Your task to perform on an android device: allow notifications from all sites in the chrome app Image 0: 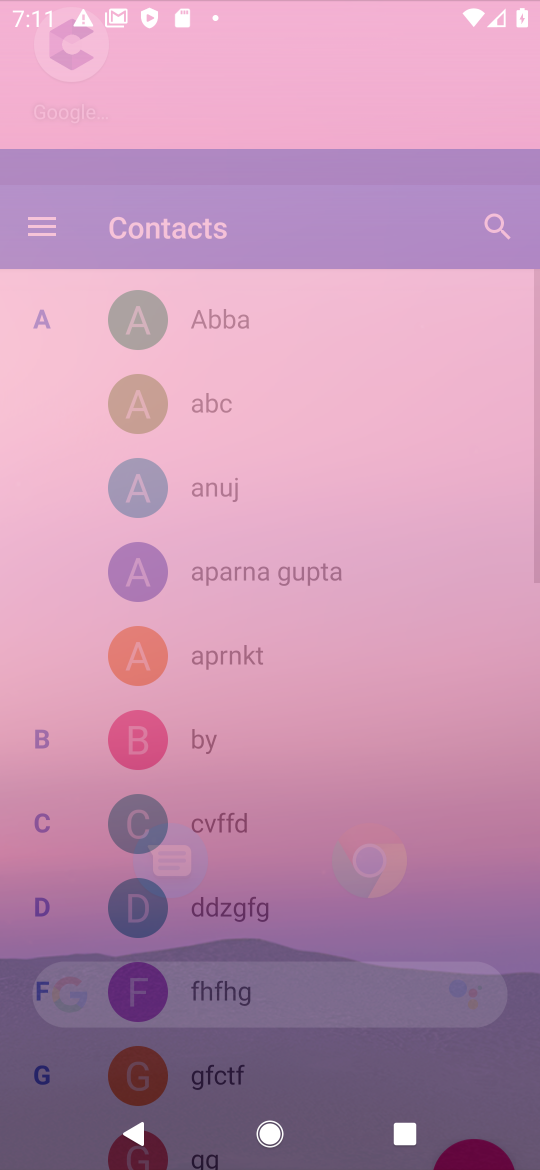
Step 0: press home button
Your task to perform on an android device: allow notifications from all sites in the chrome app Image 1: 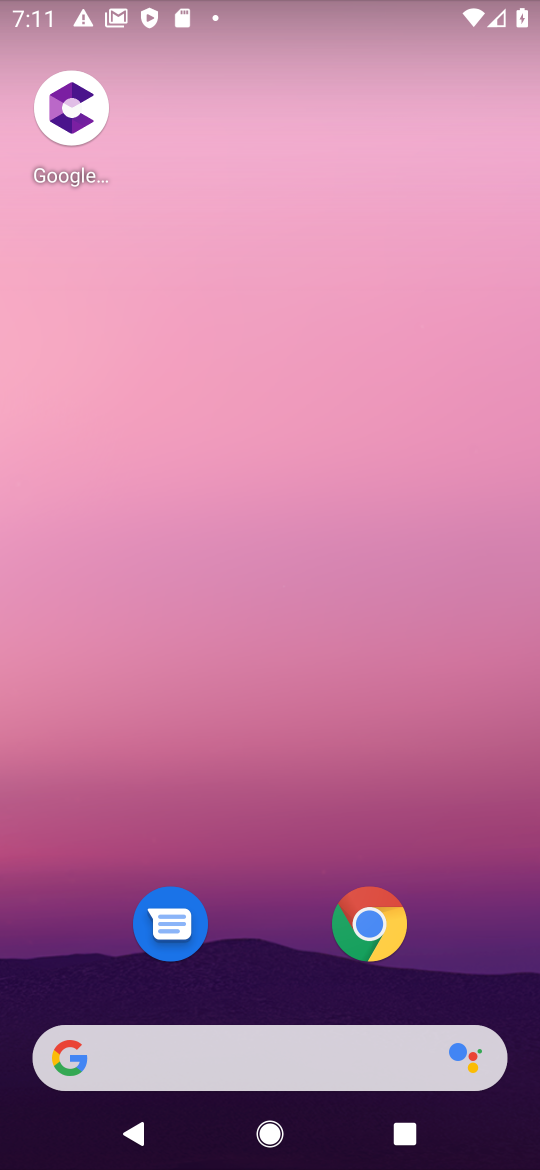
Step 1: drag from (283, 1057) to (283, 304)
Your task to perform on an android device: allow notifications from all sites in the chrome app Image 2: 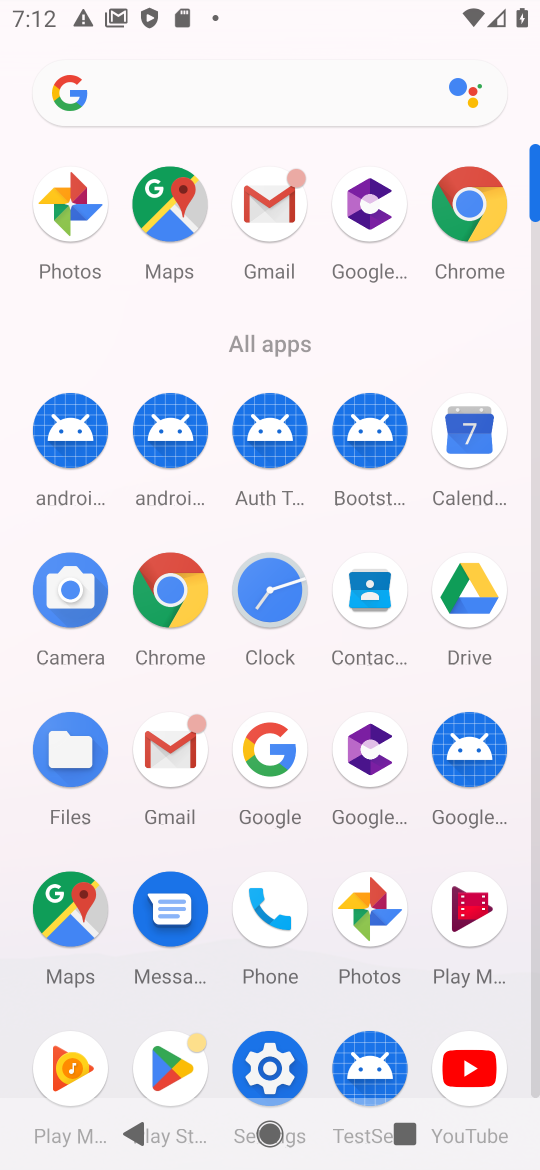
Step 2: click (417, 225)
Your task to perform on an android device: allow notifications from all sites in the chrome app Image 3: 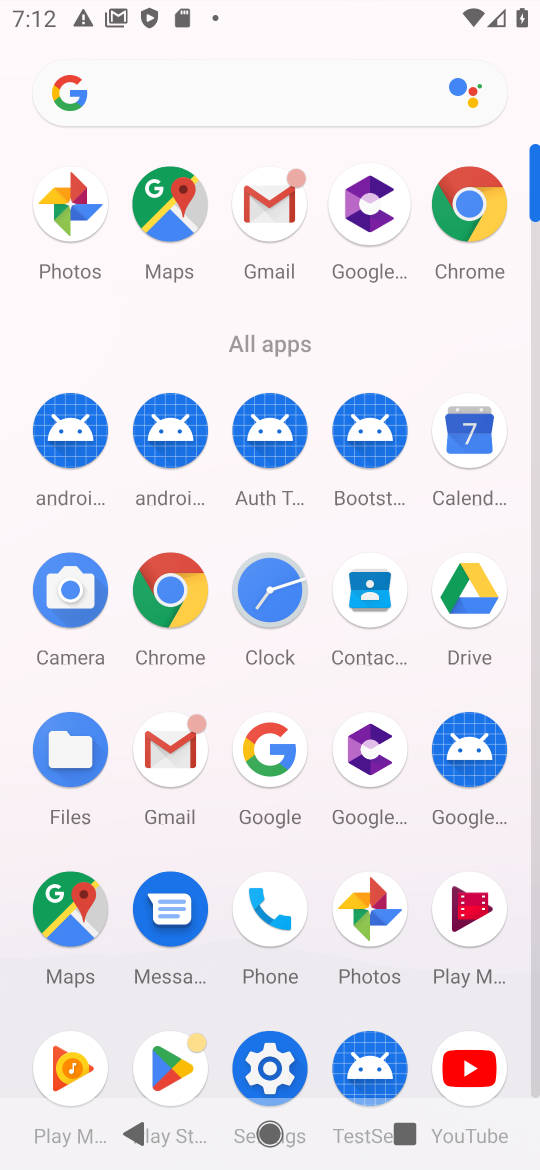
Step 3: press home button
Your task to perform on an android device: allow notifications from all sites in the chrome app Image 4: 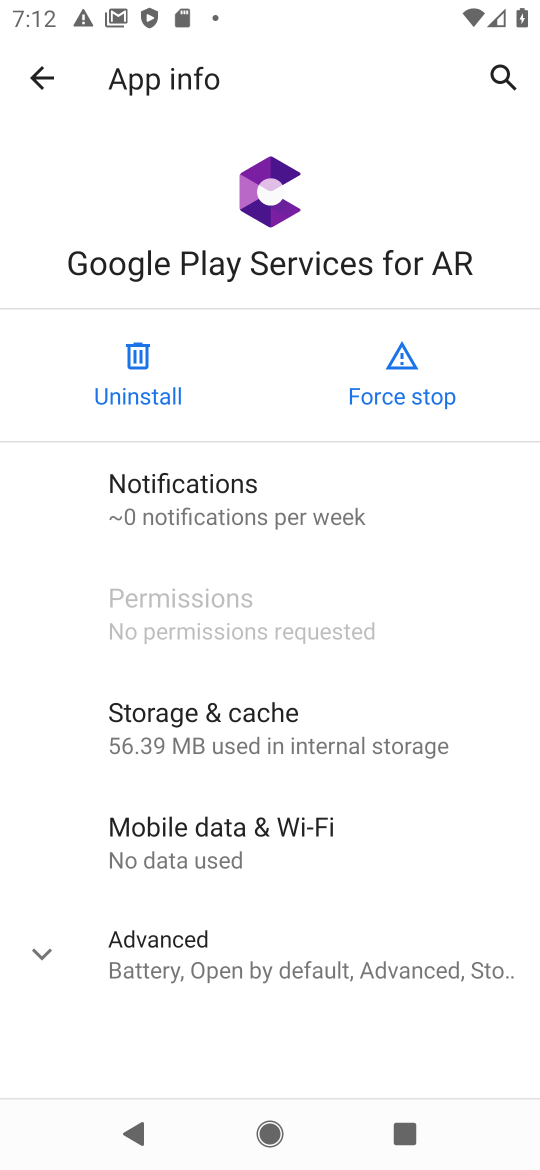
Step 4: click (451, 213)
Your task to perform on an android device: allow notifications from all sites in the chrome app Image 5: 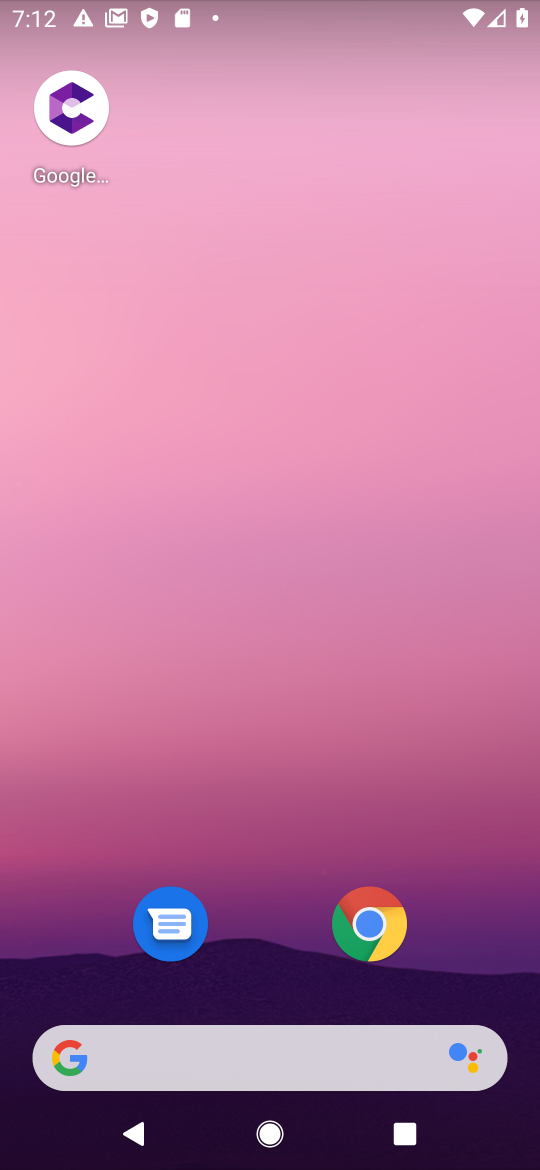
Step 5: drag from (461, 478) to (428, 255)
Your task to perform on an android device: allow notifications from all sites in the chrome app Image 6: 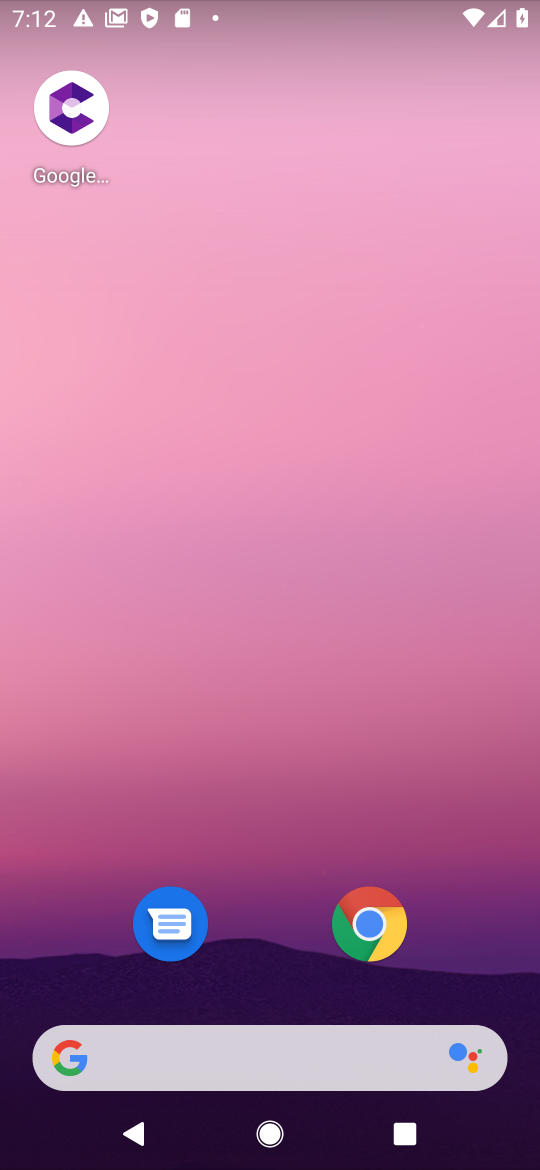
Step 6: drag from (366, 944) to (444, 391)
Your task to perform on an android device: allow notifications from all sites in the chrome app Image 7: 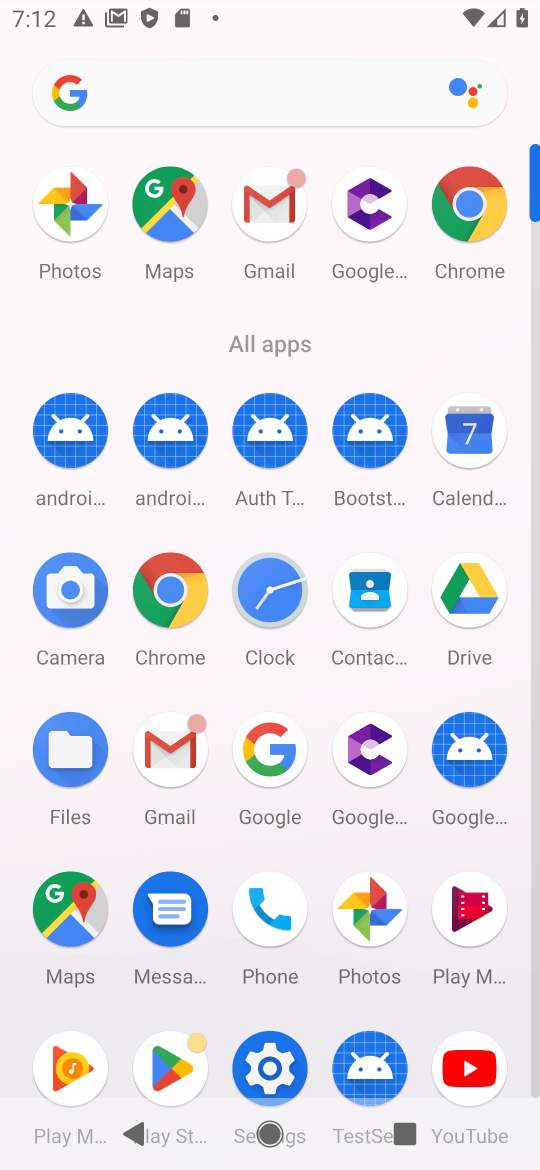
Step 7: click (464, 242)
Your task to perform on an android device: allow notifications from all sites in the chrome app Image 8: 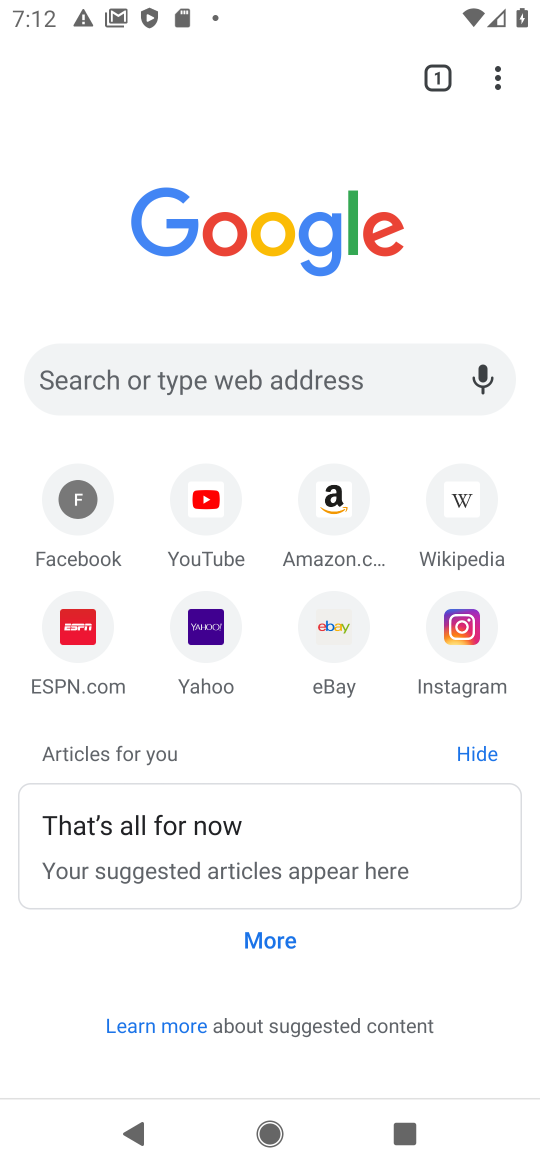
Step 8: click (497, 97)
Your task to perform on an android device: allow notifications from all sites in the chrome app Image 9: 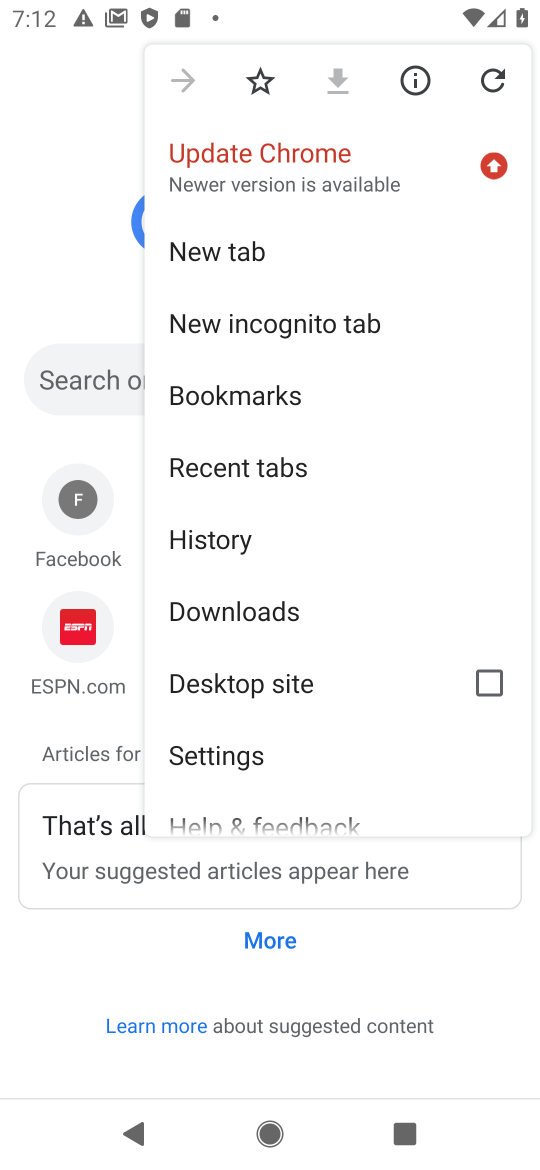
Step 9: click (231, 755)
Your task to perform on an android device: allow notifications from all sites in the chrome app Image 10: 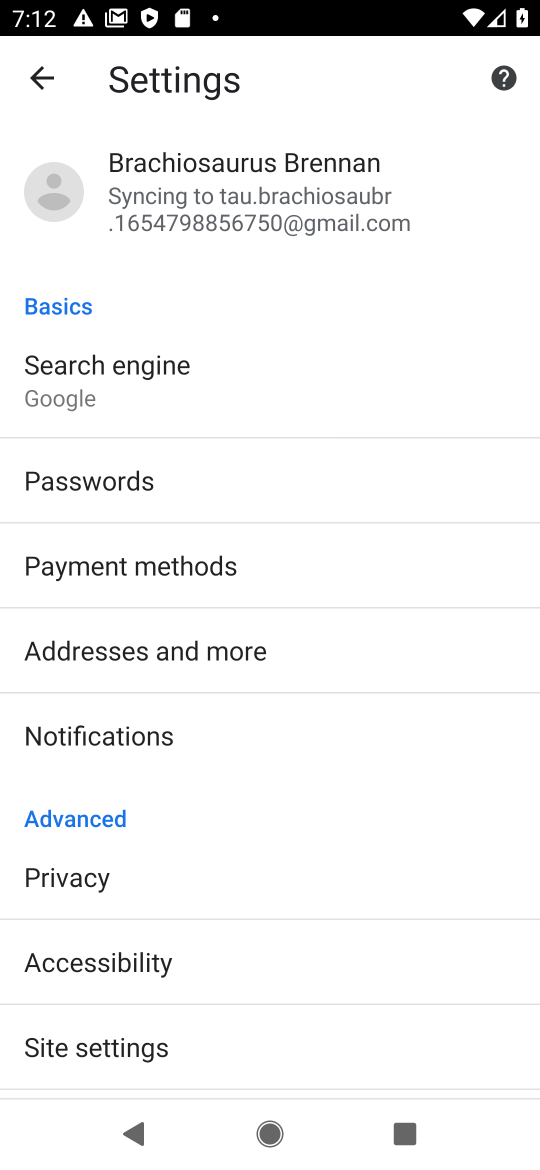
Step 10: click (131, 1038)
Your task to perform on an android device: allow notifications from all sites in the chrome app Image 11: 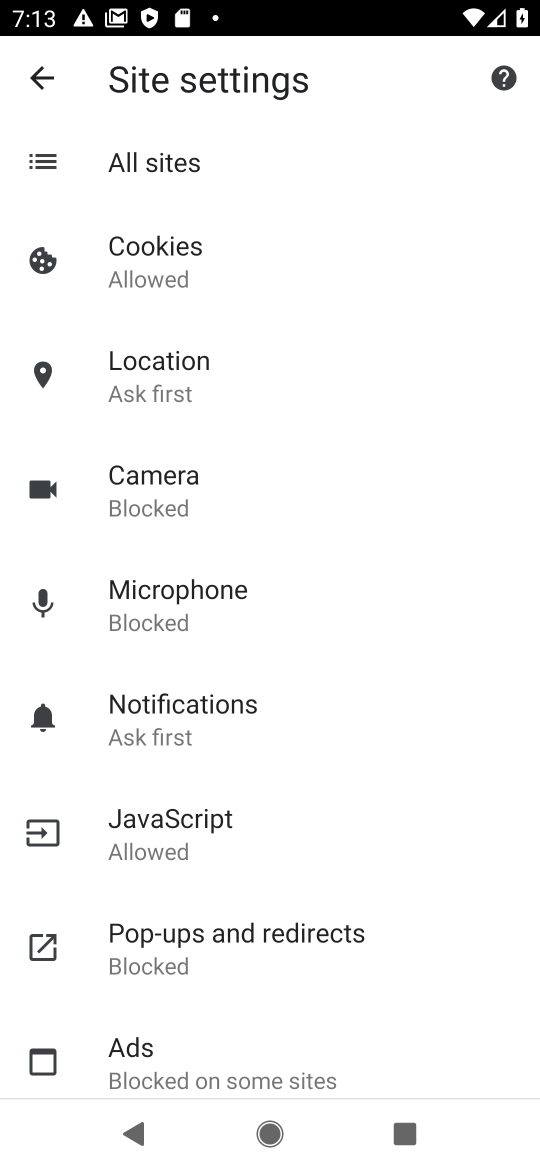
Step 11: click (223, 744)
Your task to perform on an android device: allow notifications from all sites in the chrome app Image 12: 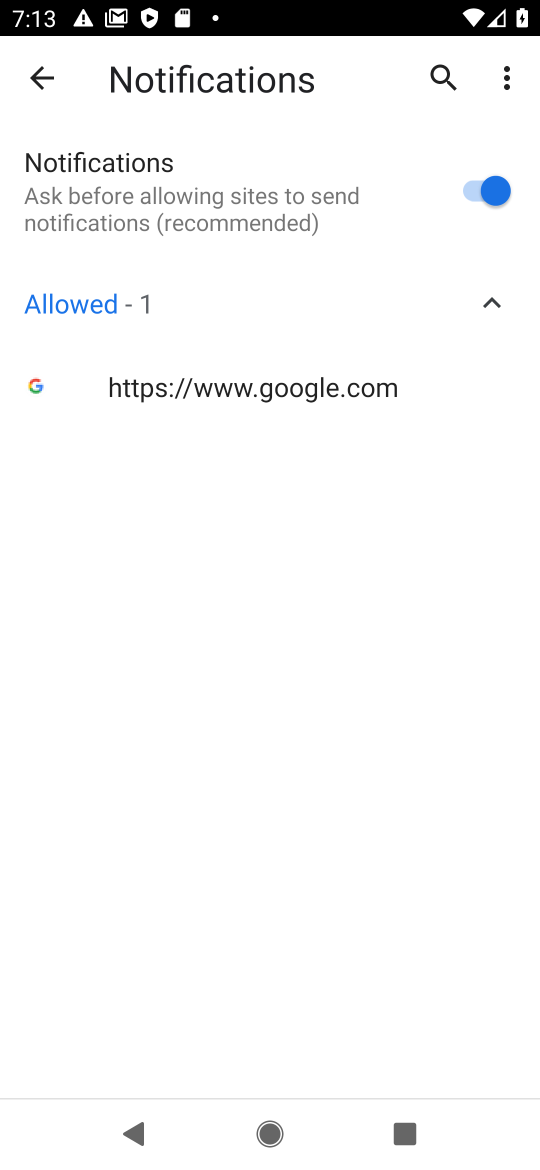
Step 12: task complete